Your task to perform on an android device: Go to wifi settings Image 0: 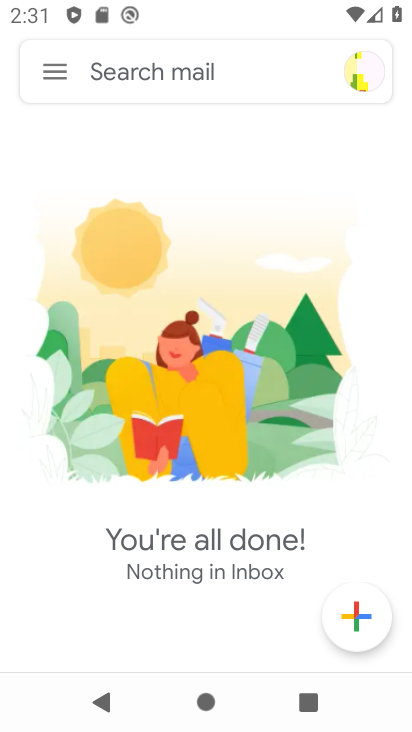
Step 0: press home button
Your task to perform on an android device: Go to wifi settings Image 1: 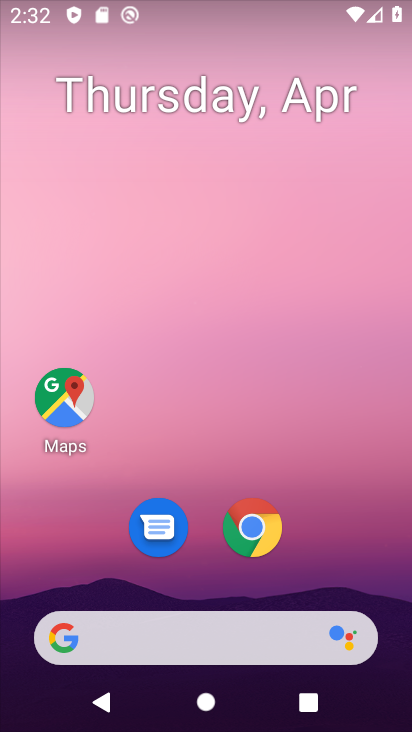
Step 1: drag from (211, 526) to (215, 15)
Your task to perform on an android device: Go to wifi settings Image 2: 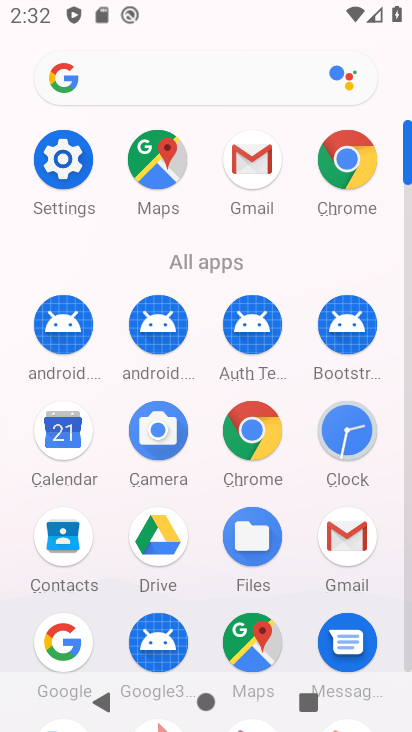
Step 2: click (77, 200)
Your task to perform on an android device: Go to wifi settings Image 3: 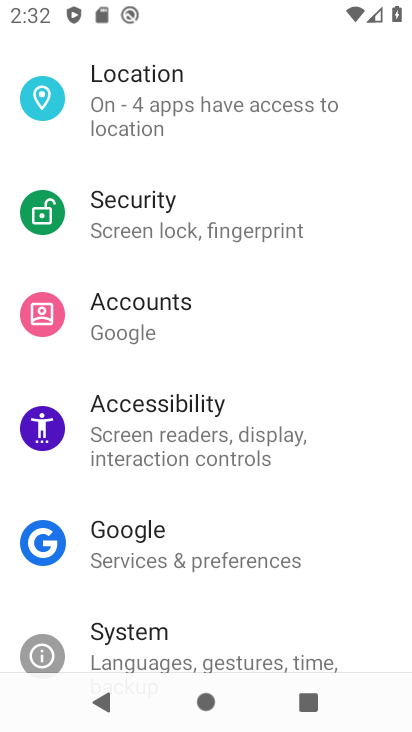
Step 3: drag from (162, 164) to (167, 719)
Your task to perform on an android device: Go to wifi settings Image 4: 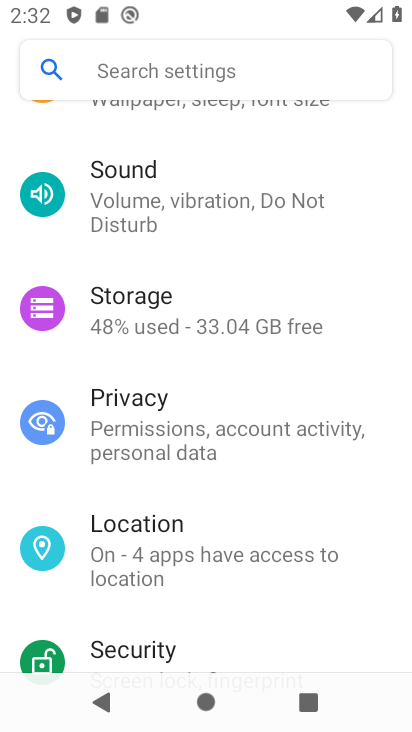
Step 4: drag from (249, 287) to (176, 717)
Your task to perform on an android device: Go to wifi settings Image 5: 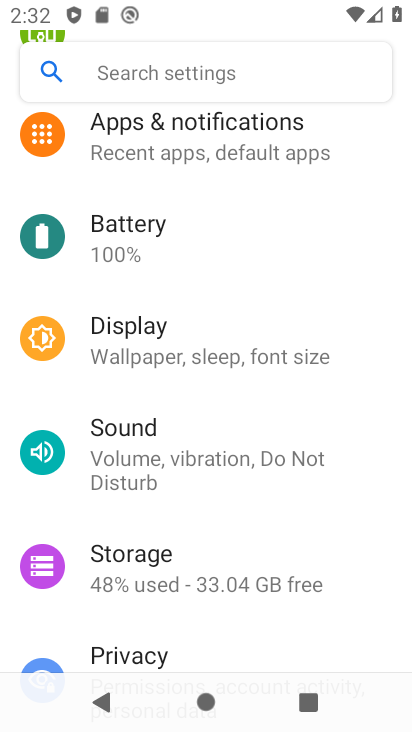
Step 5: drag from (224, 243) to (193, 731)
Your task to perform on an android device: Go to wifi settings Image 6: 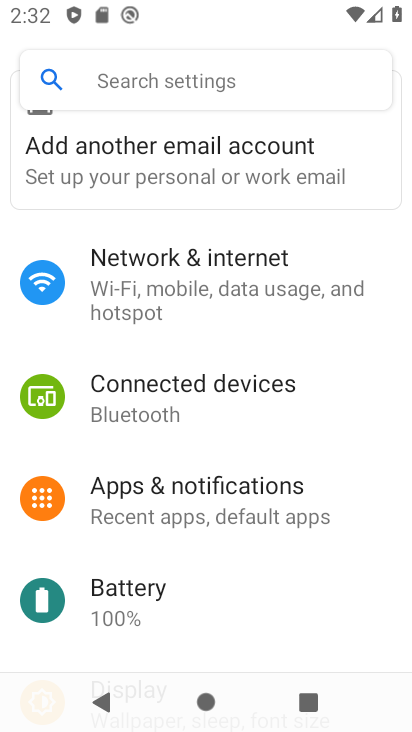
Step 6: click (191, 303)
Your task to perform on an android device: Go to wifi settings Image 7: 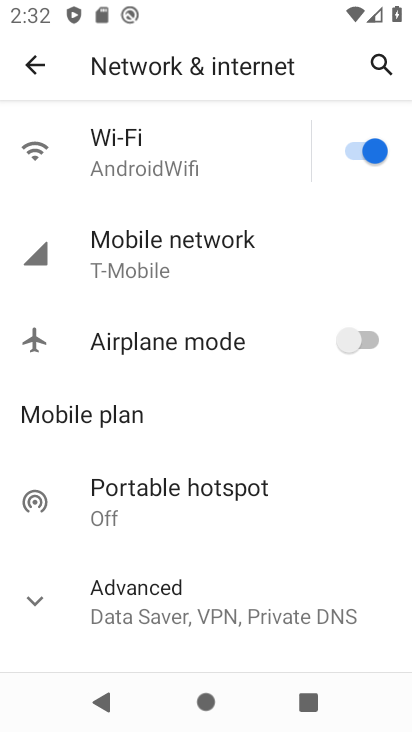
Step 7: click (169, 168)
Your task to perform on an android device: Go to wifi settings Image 8: 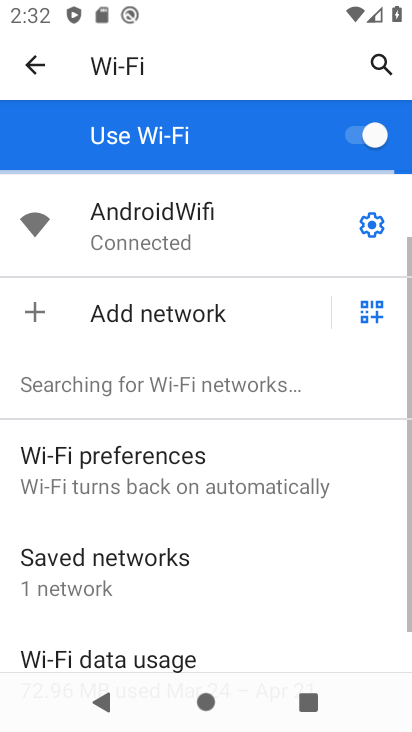
Step 8: task complete